Your task to perform on an android device: turn on wifi Image 0: 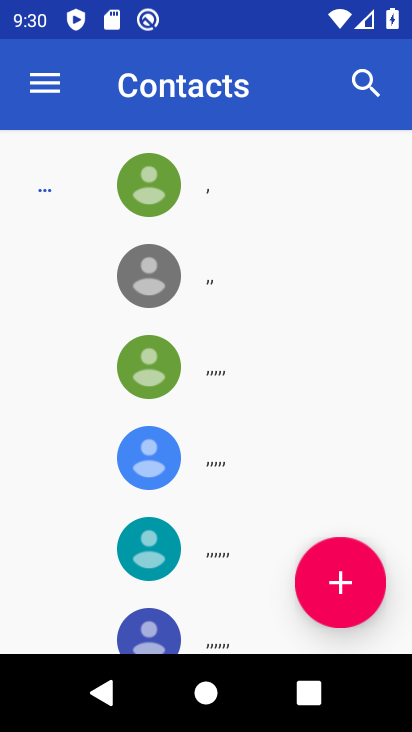
Step 0: press home button
Your task to perform on an android device: turn on wifi Image 1: 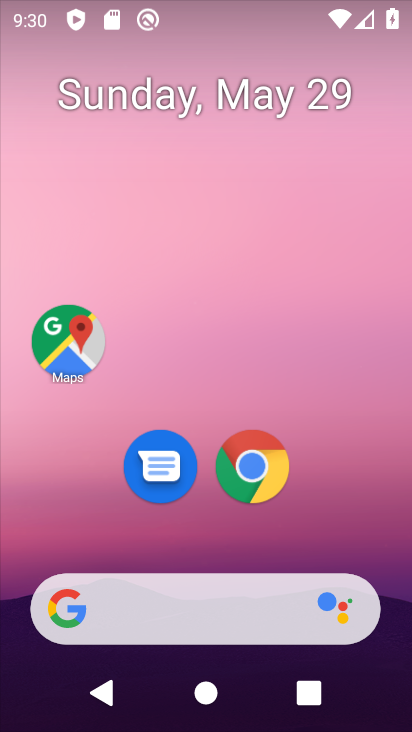
Step 1: drag from (201, 548) to (195, 144)
Your task to perform on an android device: turn on wifi Image 2: 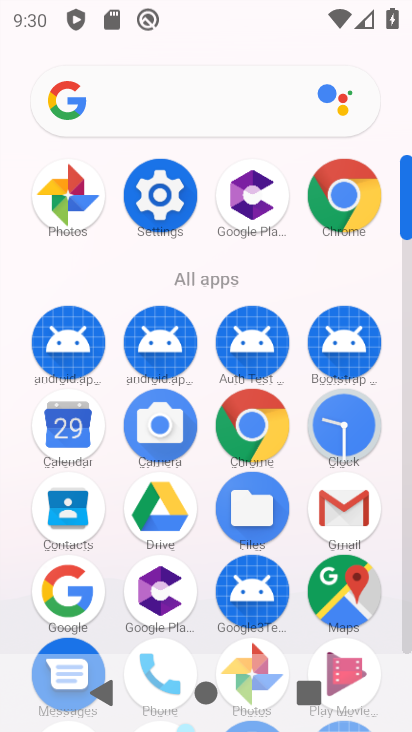
Step 2: click (165, 177)
Your task to perform on an android device: turn on wifi Image 3: 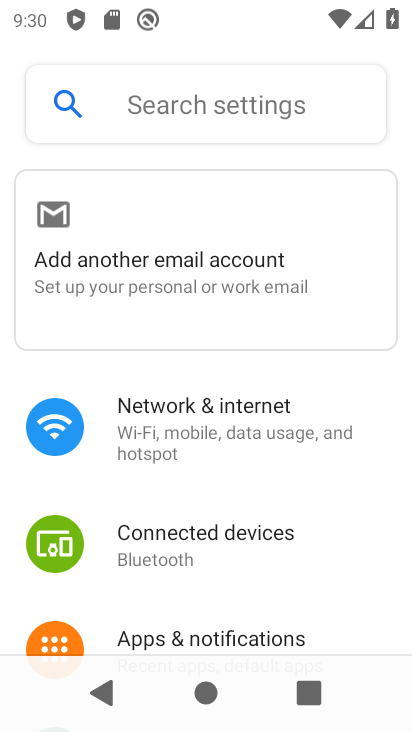
Step 3: click (210, 256)
Your task to perform on an android device: turn on wifi Image 4: 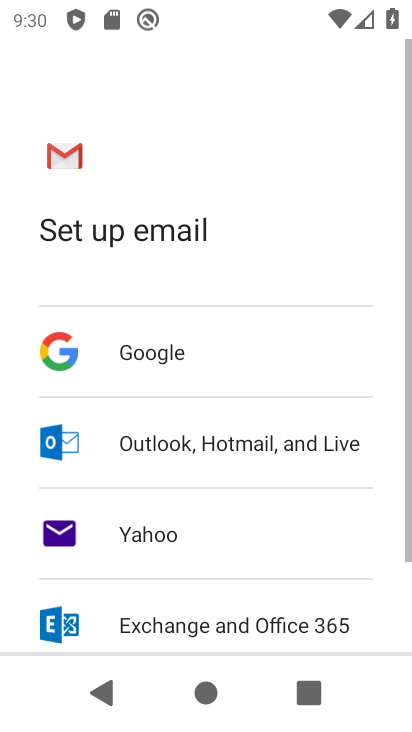
Step 4: press back button
Your task to perform on an android device: turn on wifi Image 5: 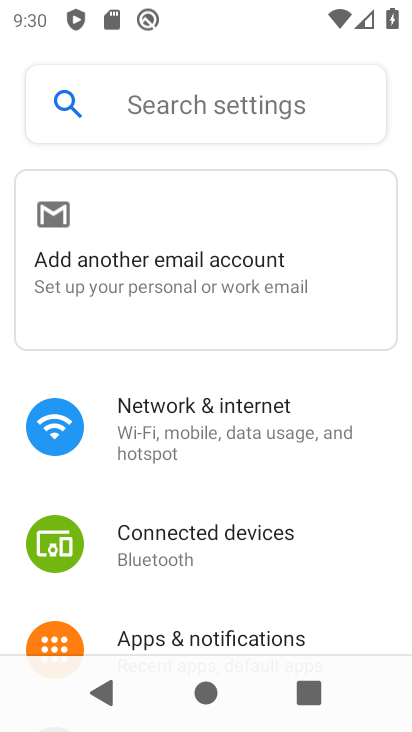
Step 5: click (192, 418)
Your task to perform on an android device: turn on wifi Image 6: 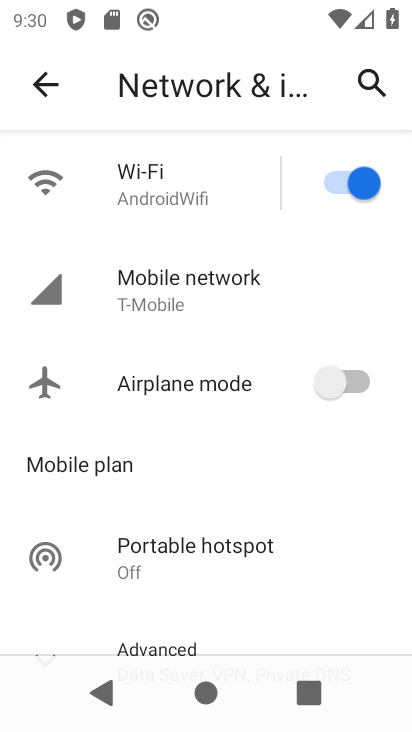
Step 6: task complete